Your task to perform on an android device: search for starred emails in the gmail app Image 0: 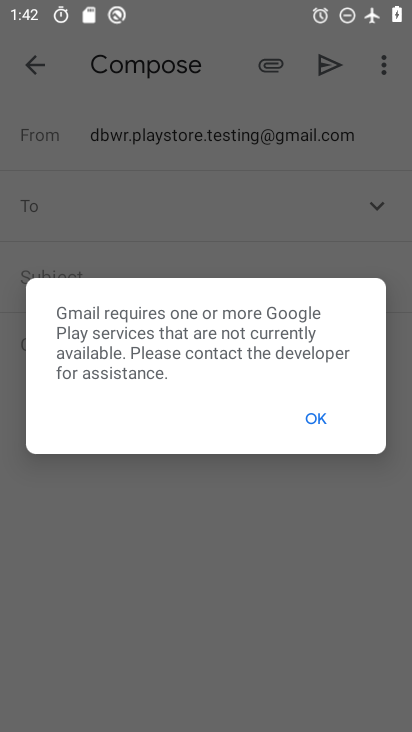
Step 0: press home button
Your task to perform on an android device: search for starred emails in the gmail app Image 1: 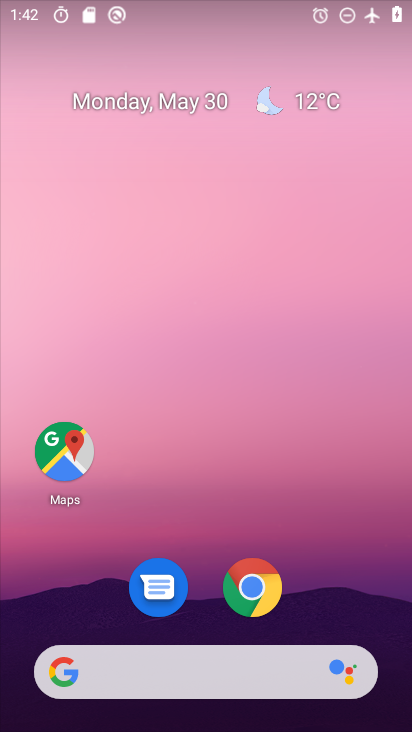
Step 1: drag from (360, 555) to (337, 52)
Your task to perform on an android device: search for starred emails in the gmail app Image 2: 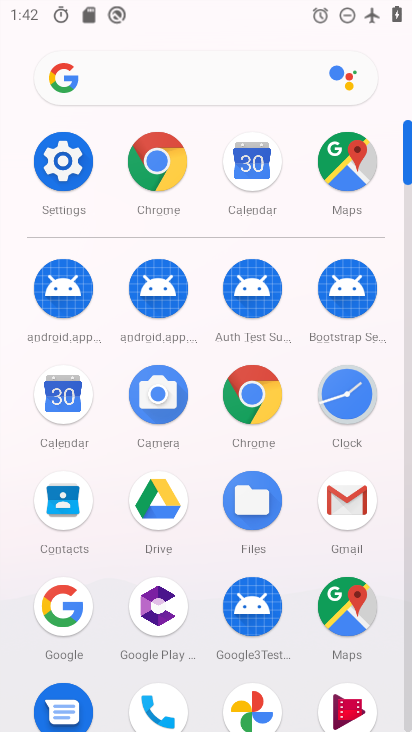
Step 2: click (351, 508)
Your task to perform on an android device: search for starred emails in the gmail app Image 3: 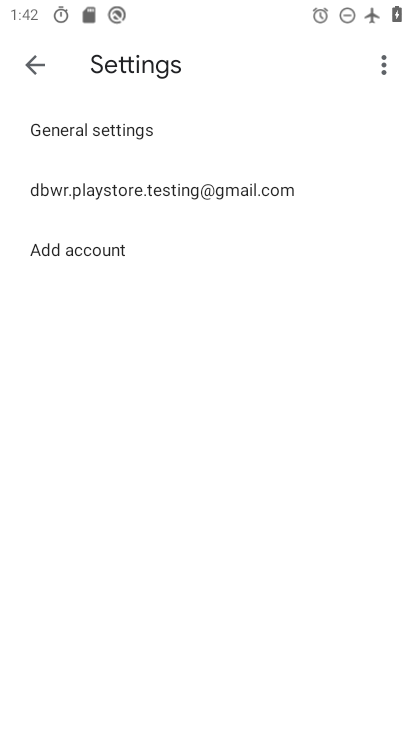
Step 3: click (31, 63)
Your task to perform on an android device: search for starred emails in the gmail app Image 4: 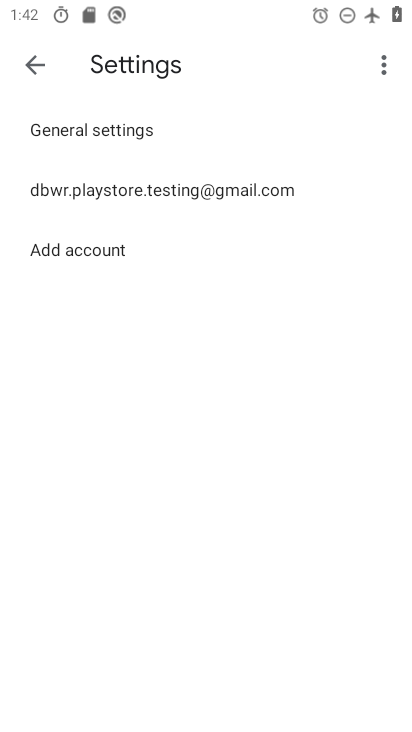
Step 4: click (22, 59)
Your task to perform on an android device: search for starred emails in the gmail app Image 5: 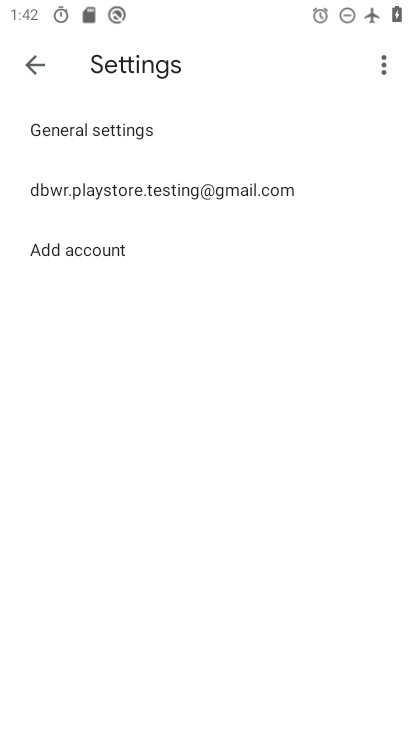
Step 5: click (30, 65)
Your task to perform on an android device: search for starred emails in the gmail app Image 6: 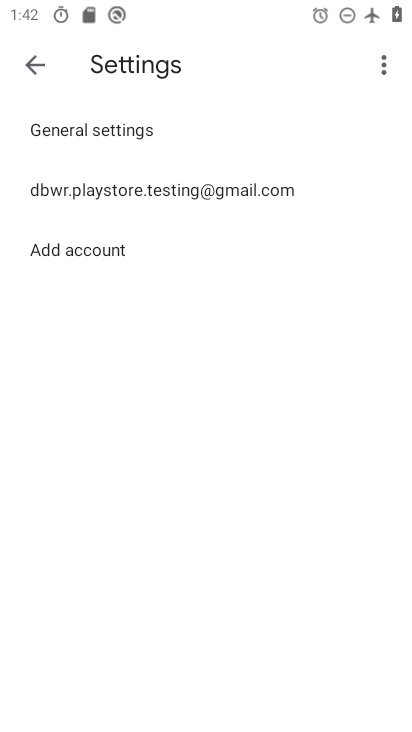
Step 6: click (31, 65)
Your task to perform on an android device: search for starred emails in the gmail app Image 7: 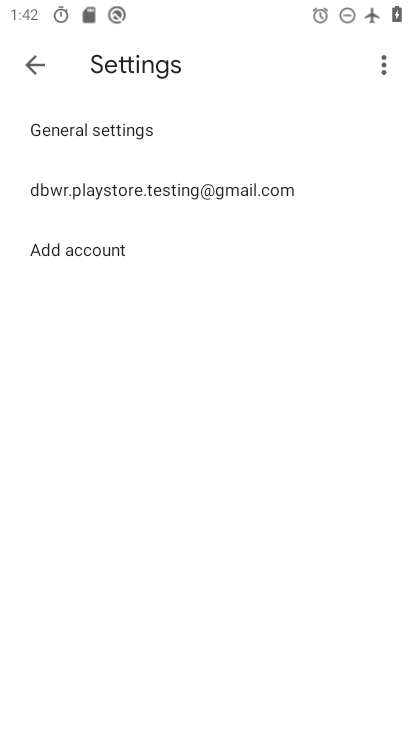
Step 7: click (31, 79)
Your task to perform on an android device: search for starred emails in the gmail app Image 8: 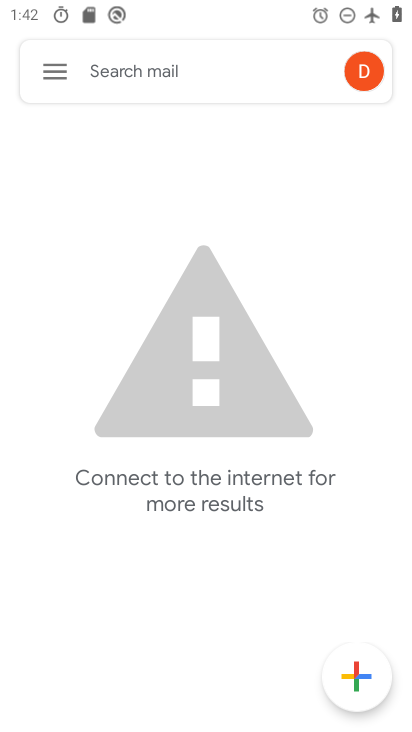
Step 8: click (41, 67)
Your task to perform on an android device: search for starred emails in the gmail app Image 9: 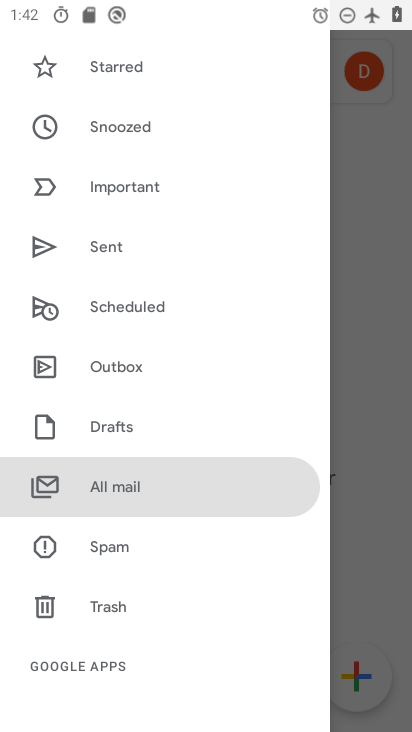
Step 9: click (141, 73)
Your task to perform on an android device: search for starred emails in the gmail app Image 10: 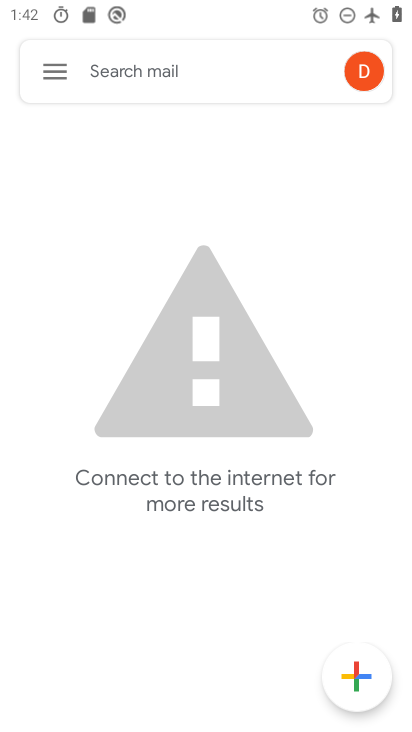
Step 10: task complete